Your task to perform on an android device: Open network settings Image 0: 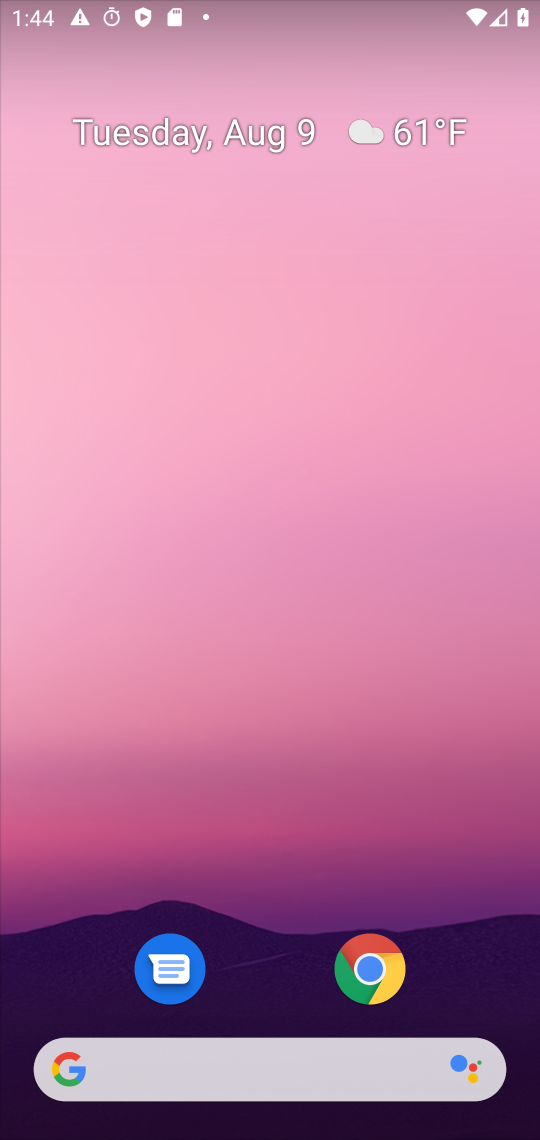
Step 0: drag from (316, 1115) to (216, 582)
Your task to perform on an android device: Open network settings Image 1: 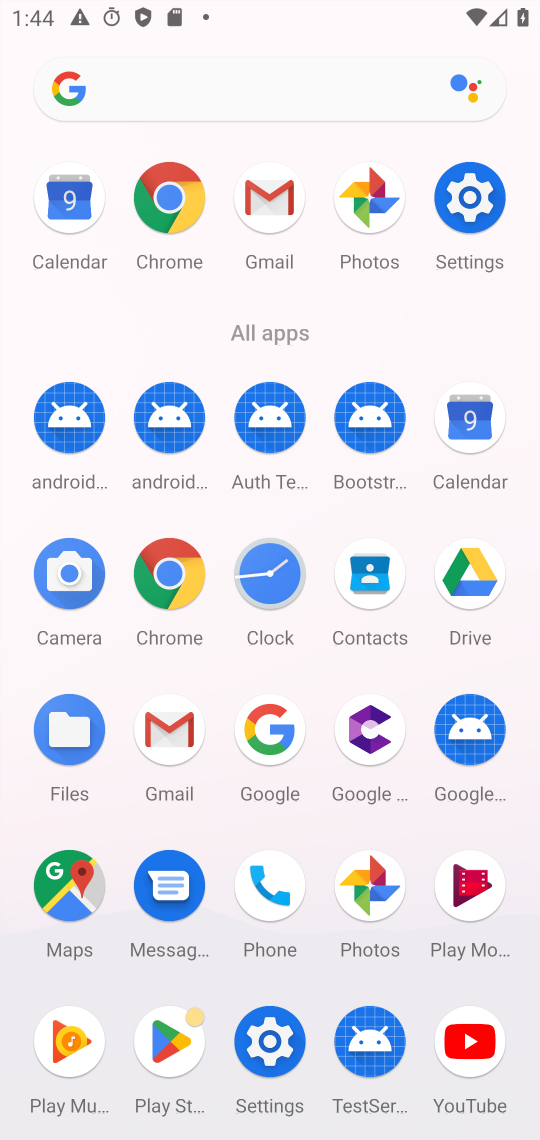
Step 1: click (475, 193)
Your task to perform on an android device: Open network settings Image 2: 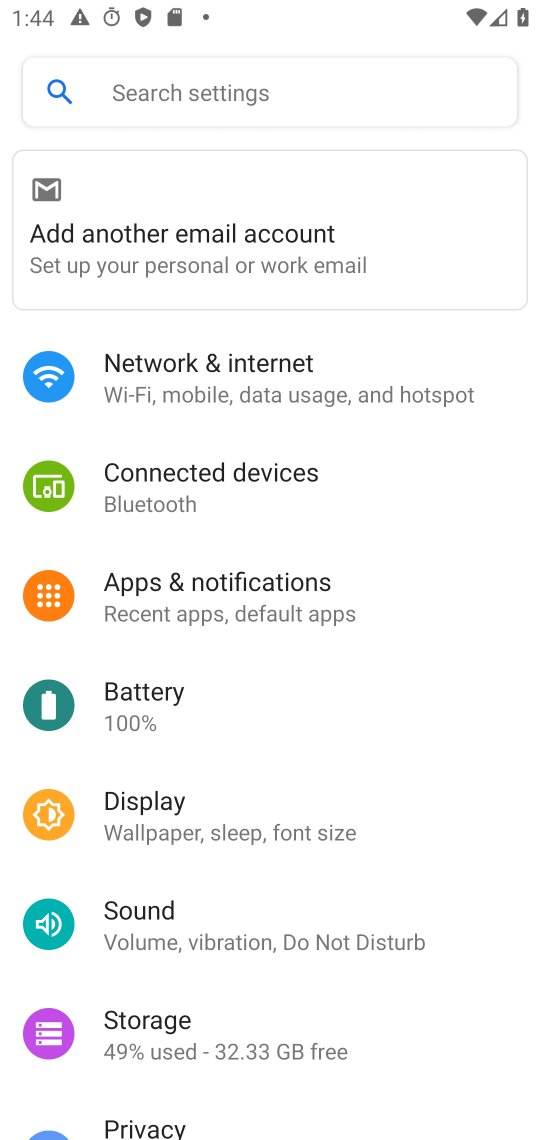
Step 2: click (175, 400)
Your task to perform on an android device: Open network settings Image 3: 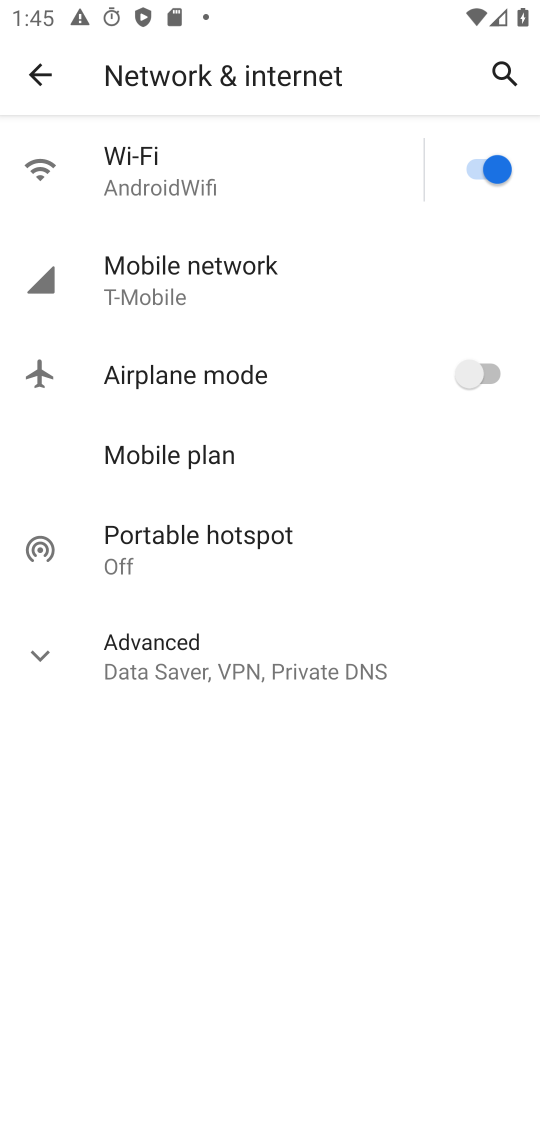
Step 3: task complete